Your task to perform on an android device: turn off smart reply in the gmail app Image 0: 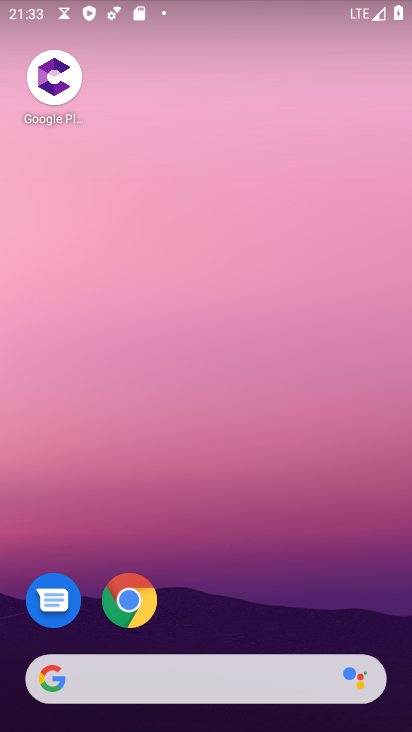
Step 0: drag from (243, 613) to (249, 233)
Your task to perform on an android device: turn off smart reply in the gmail app Image 1: 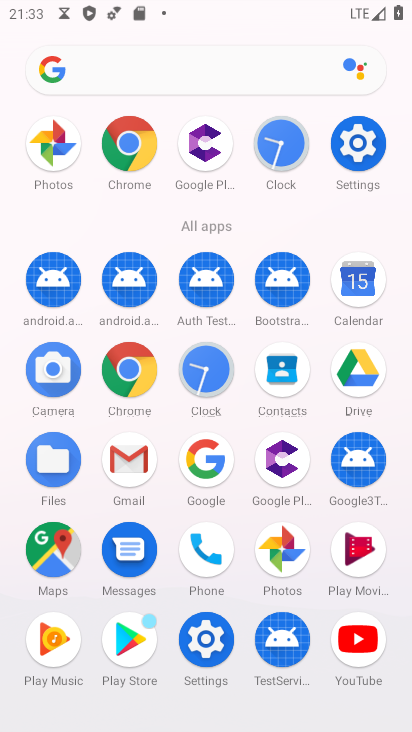
Step 1: click (130, 452)
Your task to perform on an android device: turn off smart reply in the gmail app Image 2: 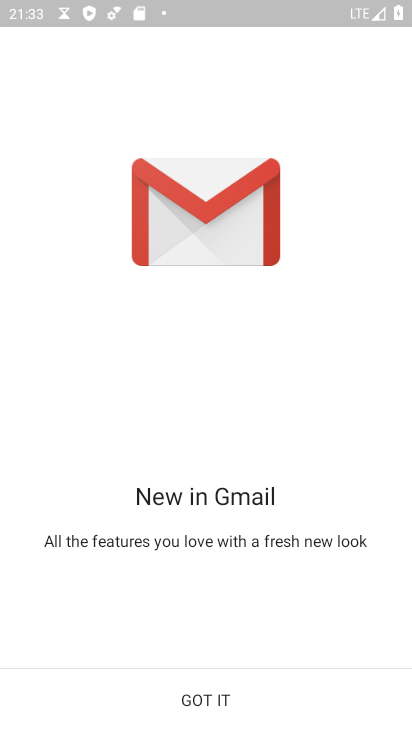
Step 2: click (219, 692)
Your task to perform on an android device: turn off smart reply in the gmail app Image 3: 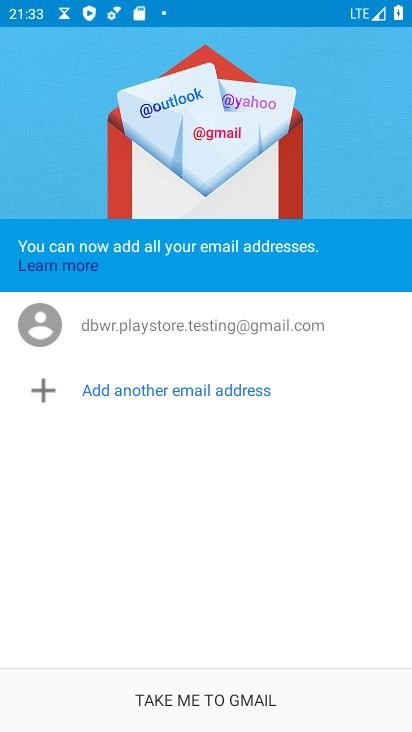
Step 3: click (264, 697)
Your task to perform on an android device: turn off smart reply in the gmail app Image 4: 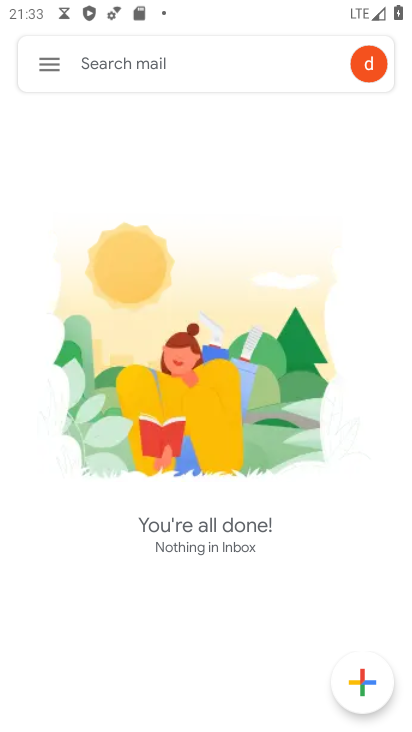
Step 4: click (56, 65)
Your task to perform on an android device: turn off smart reply in the gmail app Image 5: 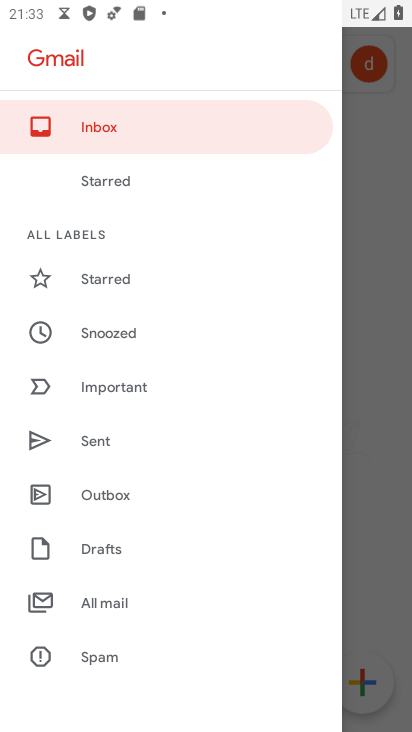
Step 5: drag from (170, 584) to (224, 174)
Your task to perform on an android device: turn off smart reply in the gmail app Image 6: 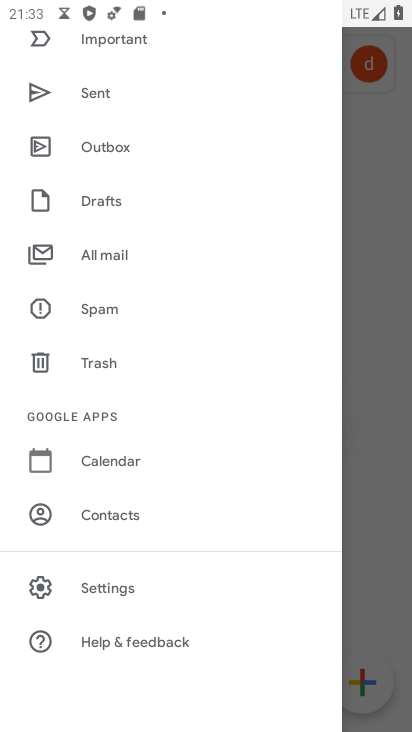
Step 6: click (186, 585)
Your task to perform on an android device: turn off smart reply in the gmail app Image 7: 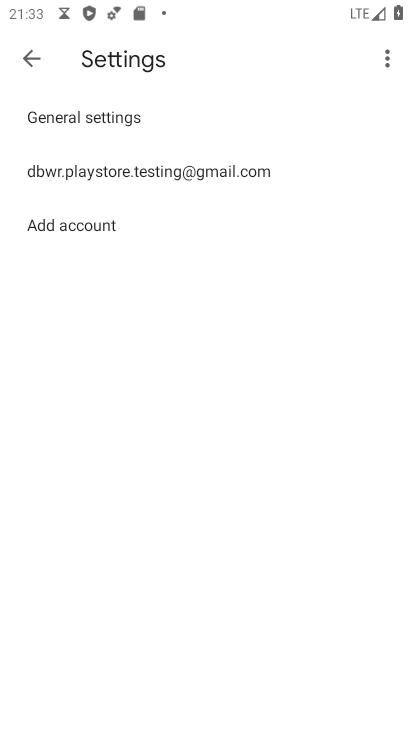
Step 7: click (279, 184)
Your task to perform on an android device: turn off smart reply in the gmail app Image 8: 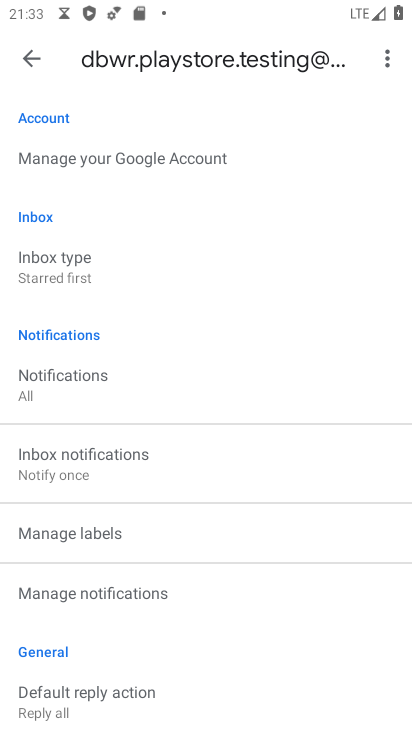
Step 8: drag from (273, 506) to (272, 349)
Your task to perform on an android device: turn off smart reply in the gmail app Image 9: 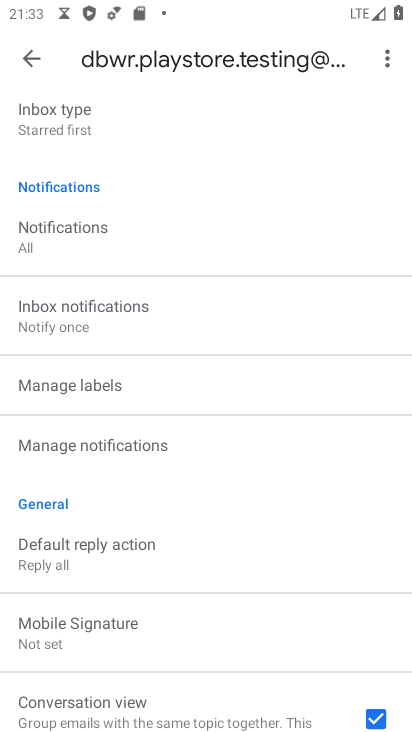
Step 9: drag from (266, 627) to (243, 343)
Your task to perform on an android device: turn off smart reply in the gmail app Image 10: 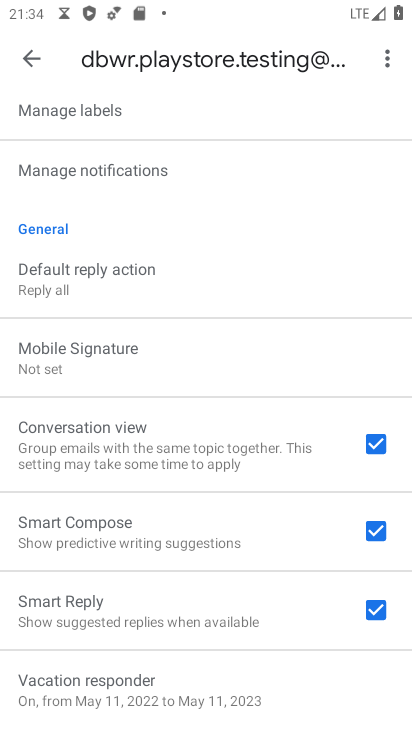
Step 10: click (380, 605)
Your task to perform on an android device: turn off smart reply in the gmail app Image 11: 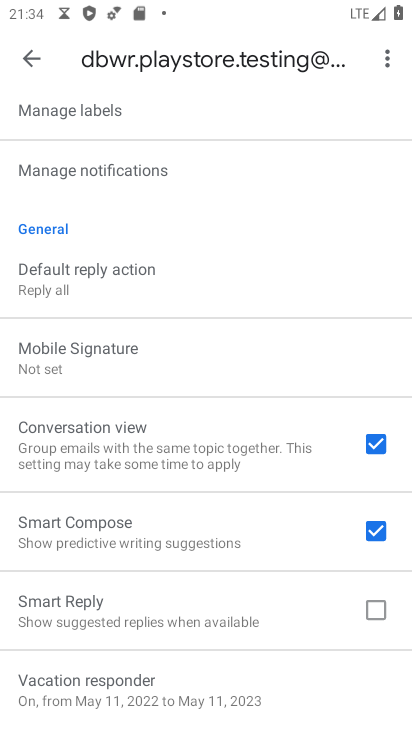
Step 11: task complete